Your task to perform on an android device: allow cookies in the chrome app Image 0: 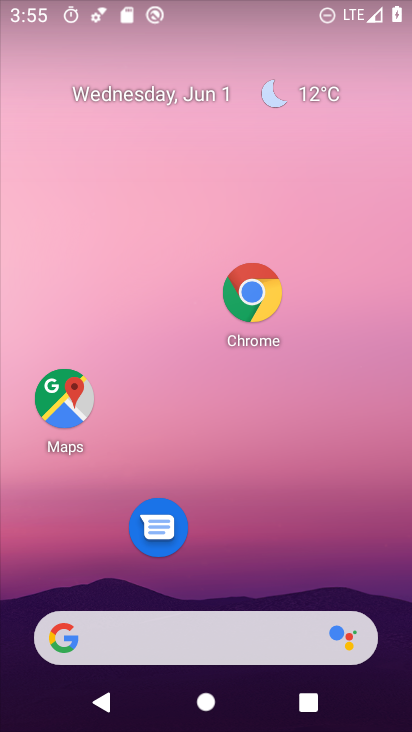
Step 0: drag from (183, 512) to (199, 430)
Your task to perform on an android device: allow cookies in the chrome app Image 1: 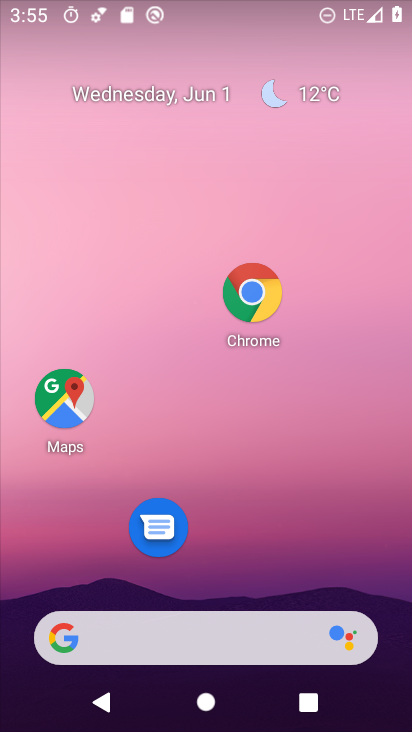
Step 1: drag from (235, 524) to (258, 199)
Your task to perform on an android device: allow cookies in the chrome app Image 2: 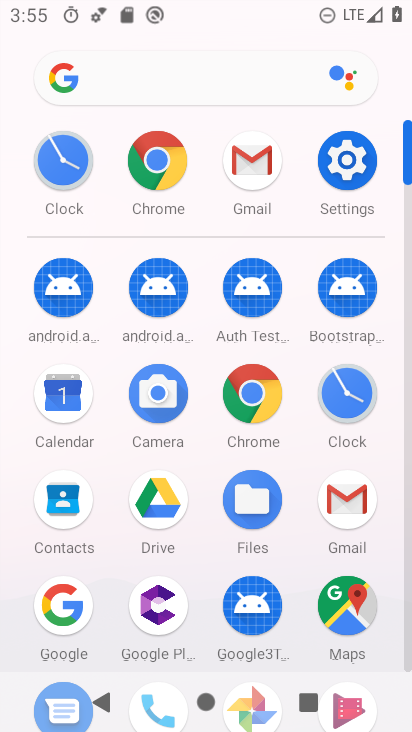
Step 2: click (245, 397)
Your task to perform on an android device: allow cookies in the chrome app Image 3: 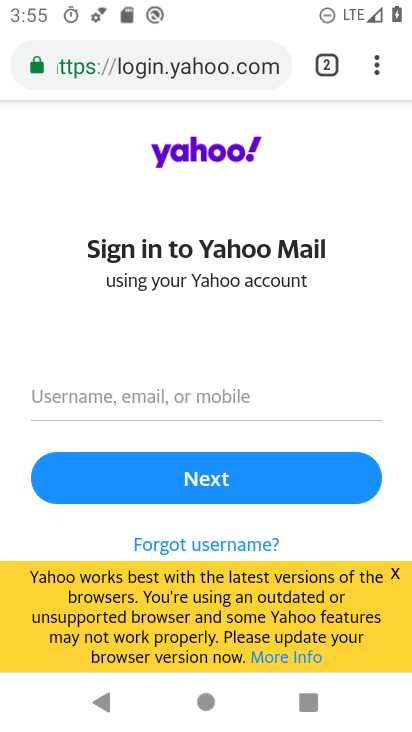
Step 3: click (378, 65)
Your task to perform on an android device: allow cookies in the chrome app Image 4: 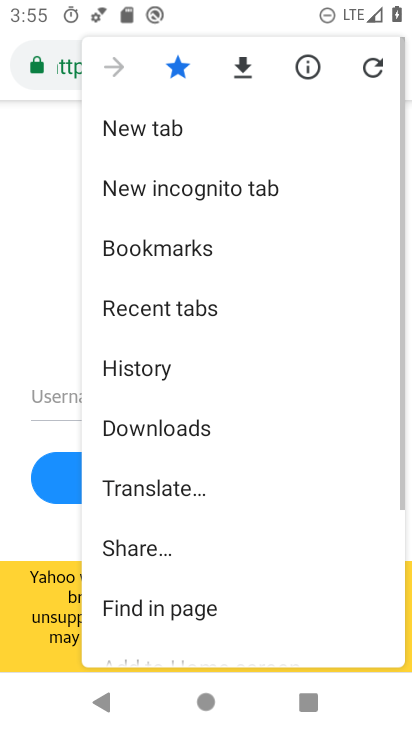
Step 4: drag from (213, 398) to (238, 89)
Your task to perform on an android device: allow cookies in the chrome app Image 5: 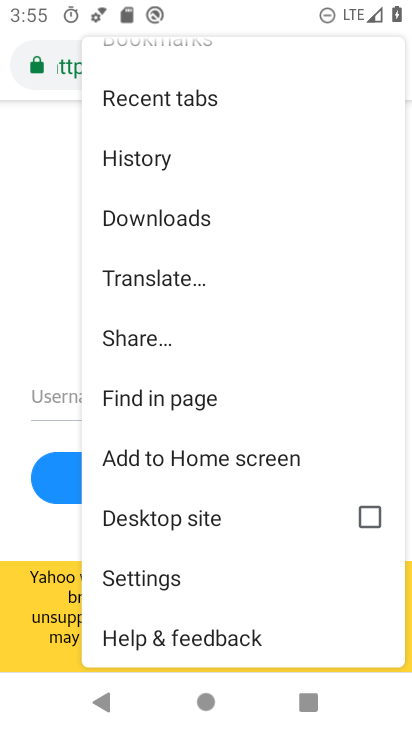
Step 5: click (135, 569)
Your task to perform on an android device: allow cookies in the chrome app Image 6: 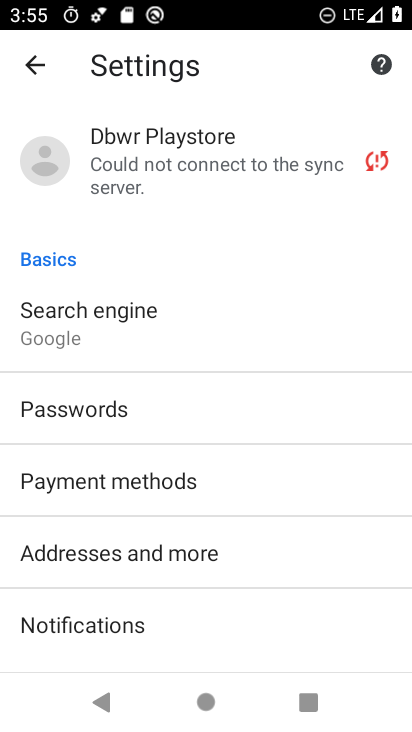
Step 6: drag from (201, 572) to (231, 83)
Your task to perform on an android device: allow cookies in the chrome app Image 7: 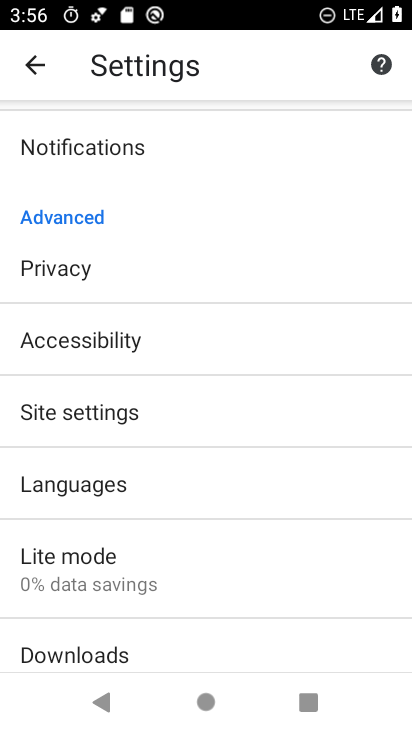
Step 7: click (139, 412)
Your task to perform on an android device: allow cookies in the chrome app Image 8: 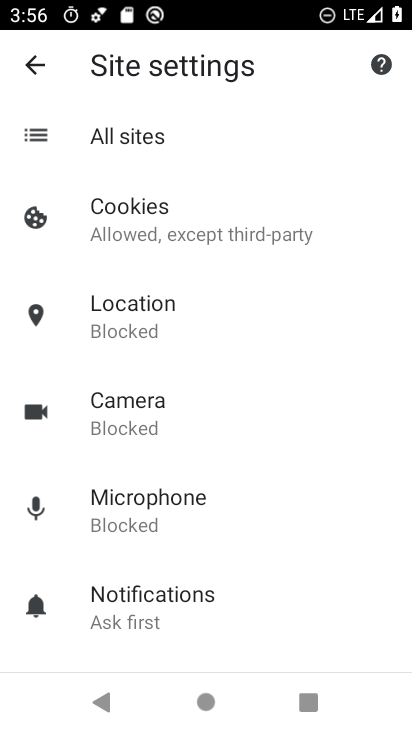
Step 8: click (186, 239)
Your task to perform on an android device: allow cookies in the chrome app Image 9: 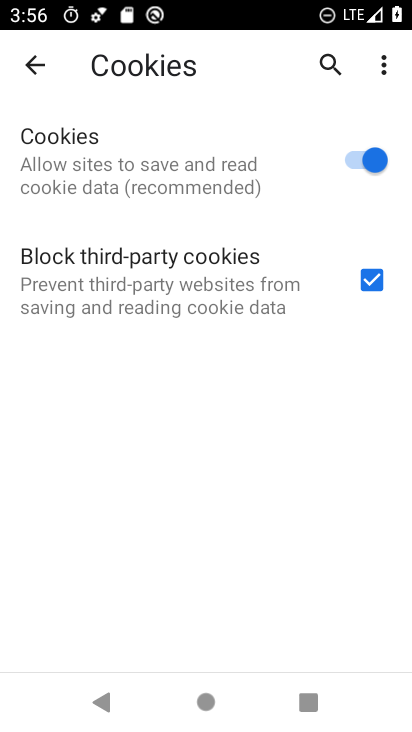
Step 9: task complete